Your task to perform on an android device: Go to network settings Image 0: 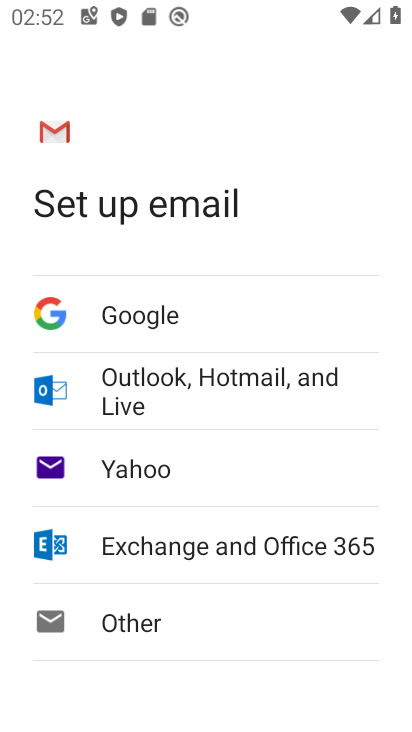
Step 0: press back button
Your task to perform on an android device: Go to network settings Image 1: 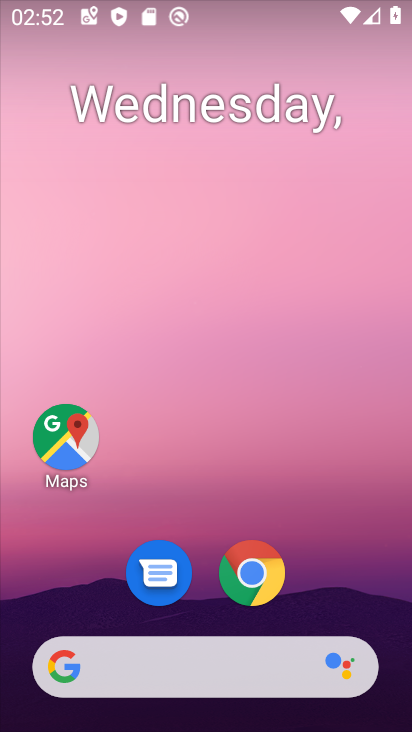
Step 1: drag from (341, 554) to (222, 75)
Your task to perform on an android device: Go to network settings Image 2: 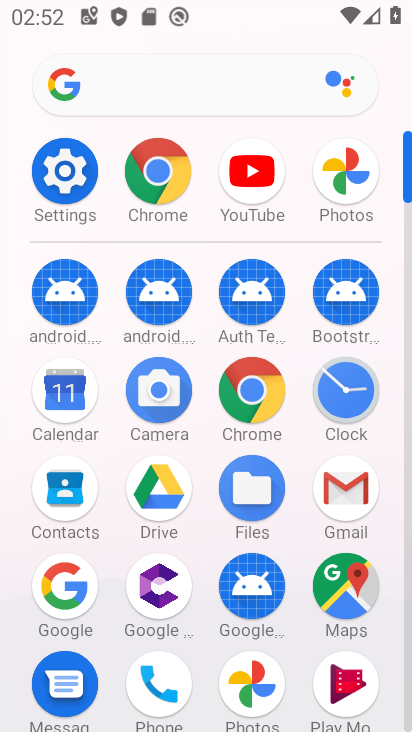
Step 2: click (62, 171)
Your task to perform on an android device: Go to network settings Image 3: 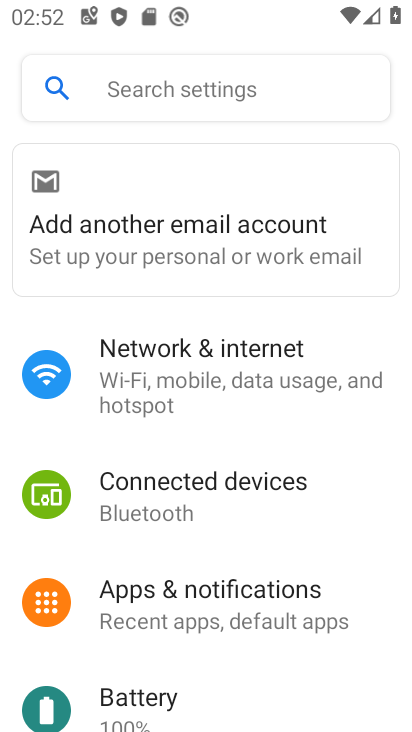
Step 3: click (198, 357)
Your task to perform on an android device: Go to network settings Image 4: 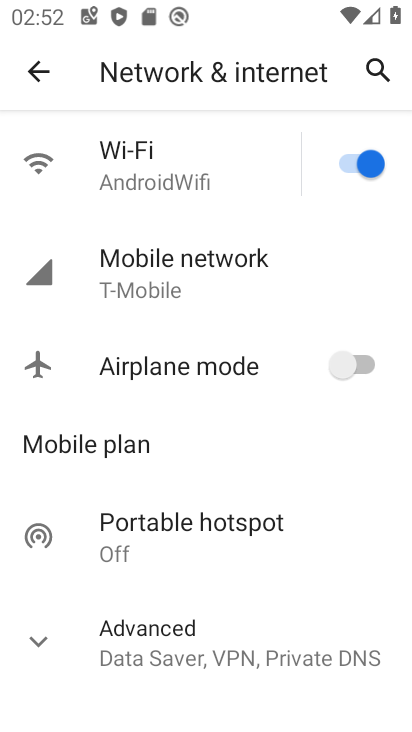
Step 4: click (245, 264)
Your task to perform on an android device: Go to network settings Image 5: 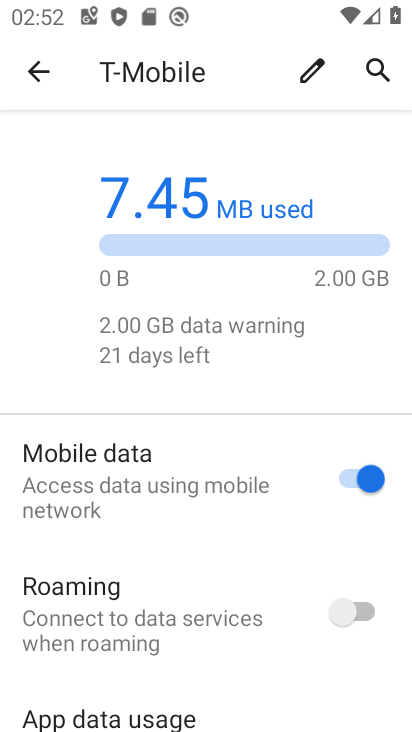
Step 5: task complete